Your task to perform on an android device: toggle javascript in the chrome app Image 0: 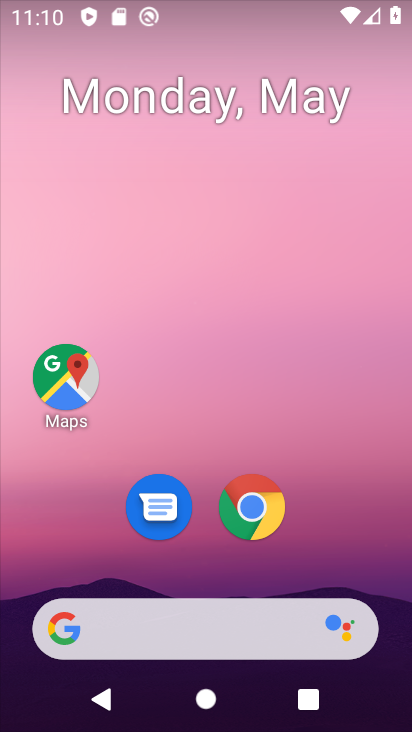
Step 0: click (243, 516)
Your task to perform on an android device: toggle javascript in the chrome app Image 1: 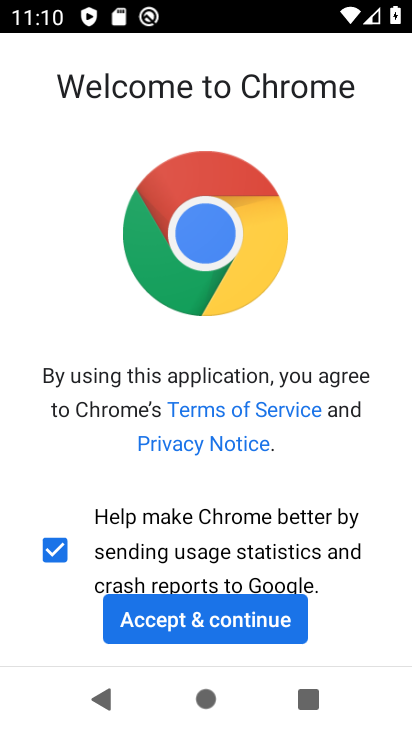
Step 1: click (254, 626)
Your task to perform on an android device: toggle javascript in the chrome app Image 2: 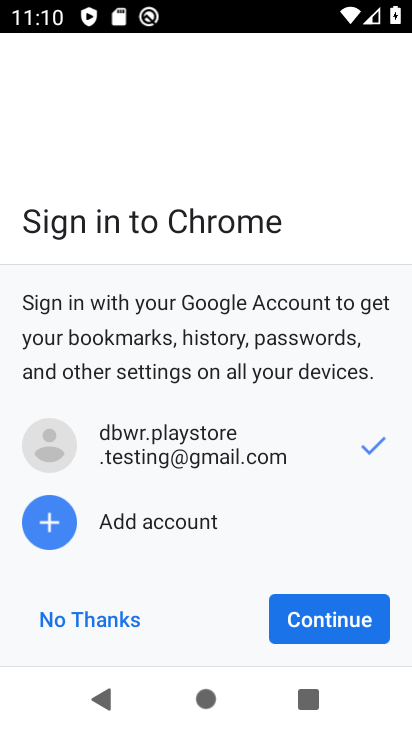
Step 2: click (327, 623)
Your task to perform on an android device: toggle javascript in the chrome app Image 3: 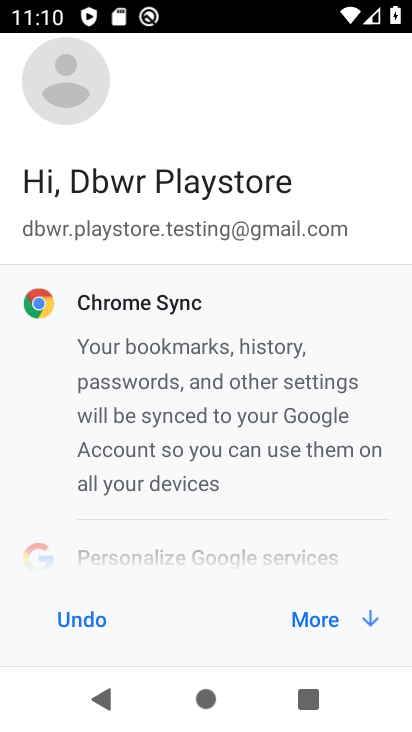
Step 3: click (327, 623)
Your task to perform on an android device: toggle javascript in the chrome app Image 4: 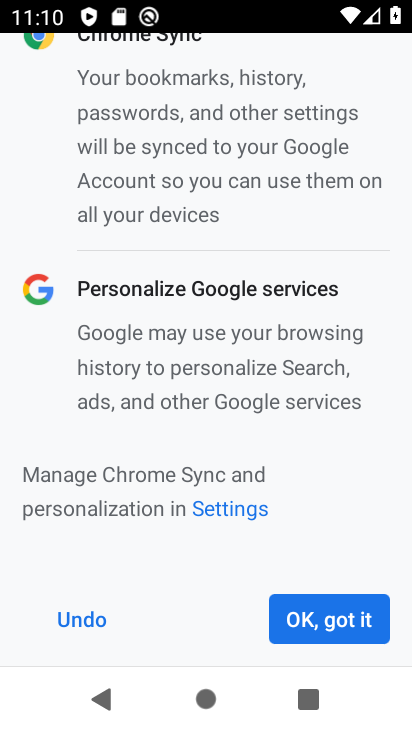
Step 4: click (327, 623)
Your task to perform on an android device: toggle javascript in the chrome app Image 5: 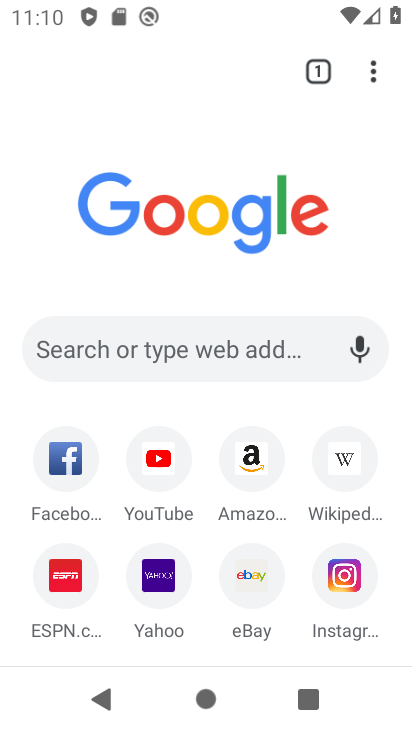
Step 5: click (378, 70)
Your task to perform on an android device: toggle javascript in the chrome app Image 6: 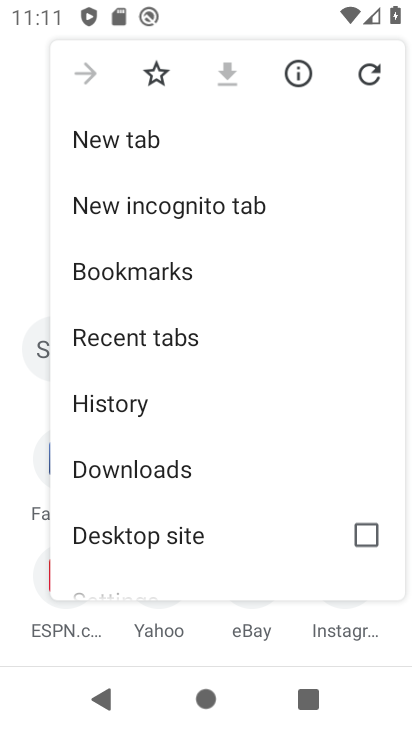
Step 6: drag from (155, 520) to (132, 110)
Your task to perform on an android device: toggle javascript in the chrome app Image 7: 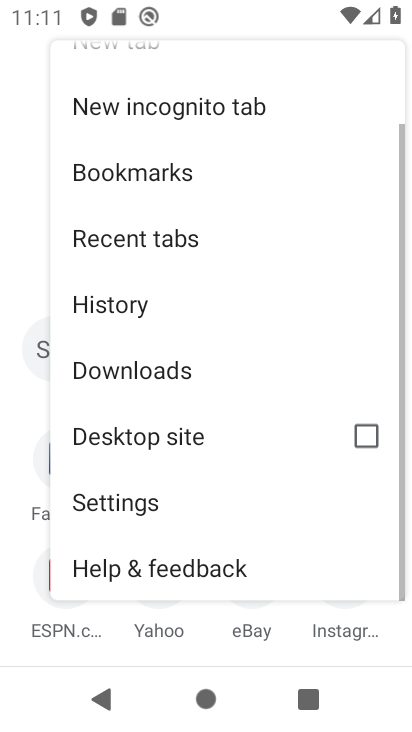
Step 7: click (170, 505)
Your task to perform on an android device: toggle javascript in the chrome app Image 8: 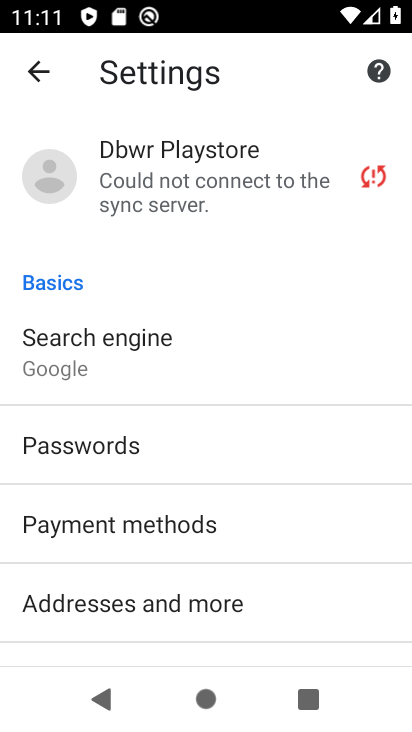
Step 8: drag from (162, 635) to (160, 63)
Your task to perform on an android device: toggle javascript in the chrome app Image 9: 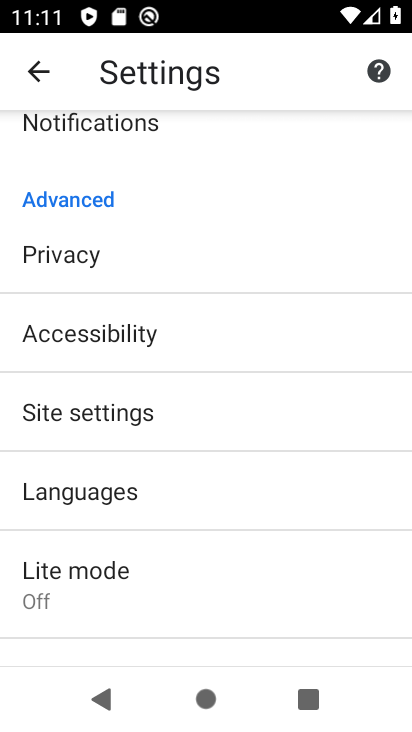
Step 9: click (164, 424)
Your task to perform on an android device: toggle javascript in the chrome app Image 10: 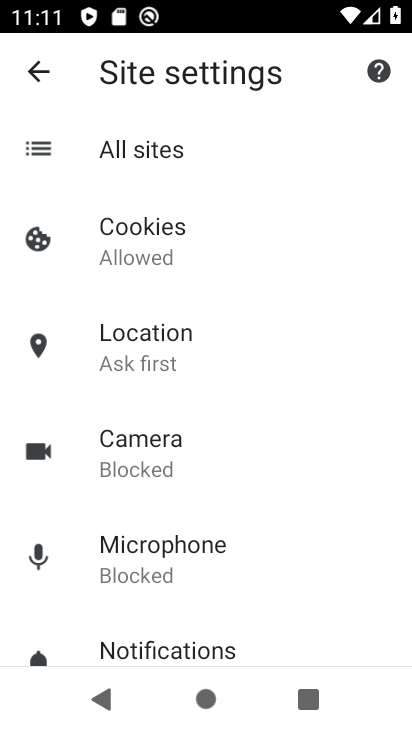
Step 10: drag from (219, 615) to (224, 150)
Your task to perform on an android device: toggle javascript in the chrome app Image 11: 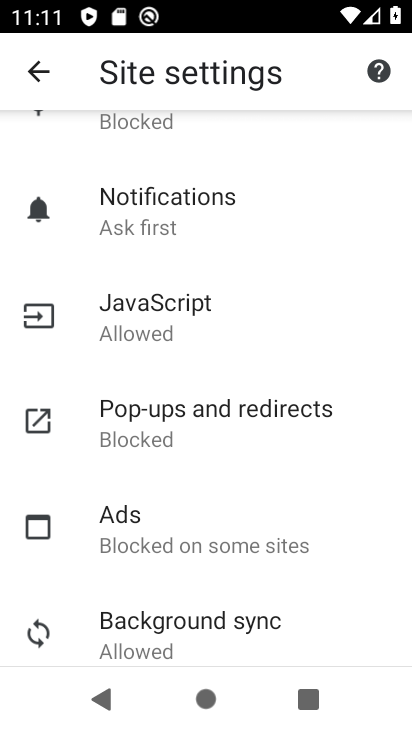
Step 11: click (233, 308)
Your task to perform on an android device: toggle javascript in the chrome app Image 12: 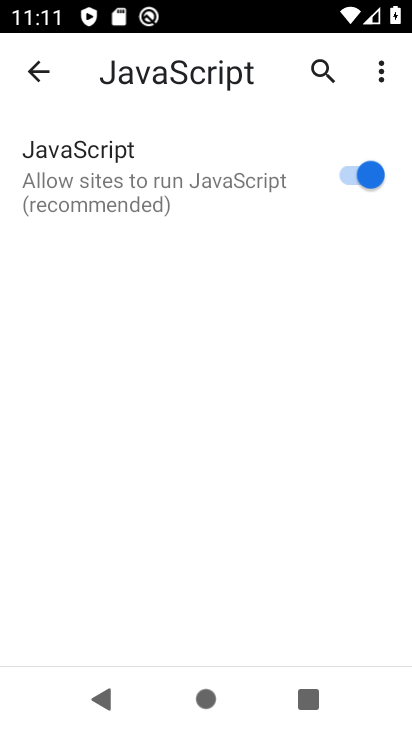
Step 12: click (356, 175)
Your task to perform on an android device: toggle javascript in the chrome app Image 13: 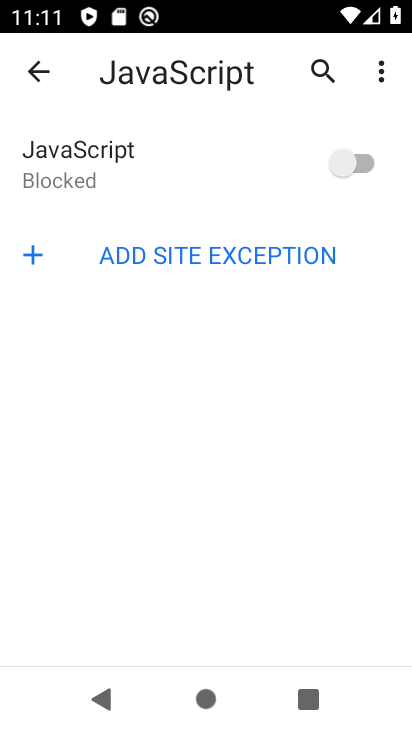
Step 13: task complete